Your task to perform on an android device: turn on priority inbox in the gmail app Image 0: 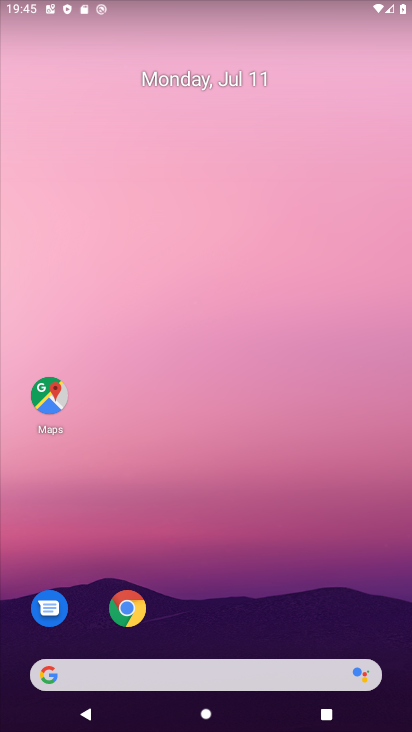
Step 0: drag from (300, 618) to (272, 40)
Your task to perform on an android device: turn on priority inbox in the gmail app Image 1: 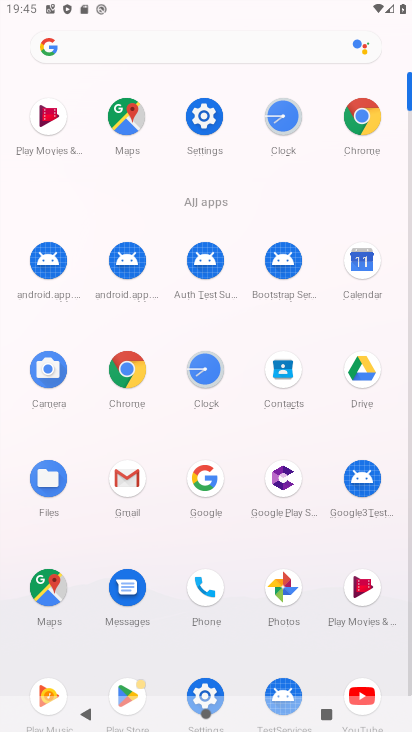
Step 1: click (137, 508)
Your task to perform on an android device: turn on priority inbox in the gmail app Image 2: 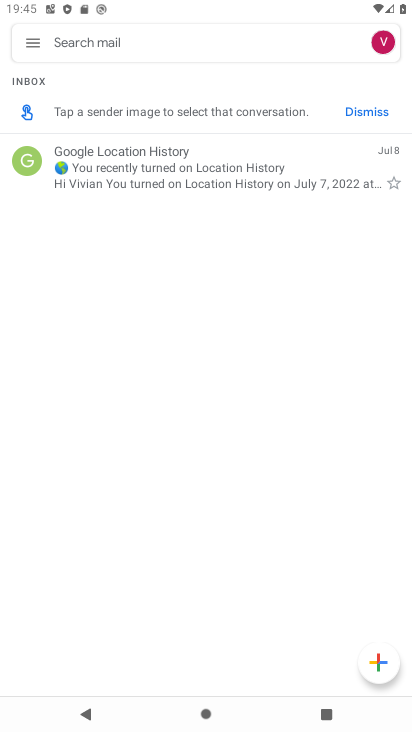
Step 2: click (37, 48)
Your task to perform on an android device: turn on priority inbox in the gmail app Image 3: 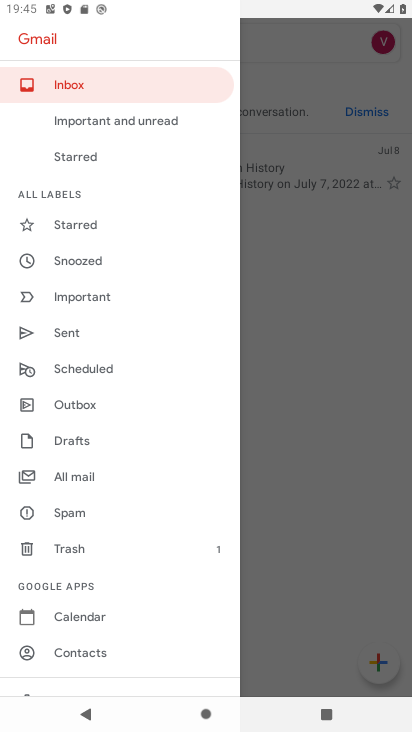
Step 3: drag from (115, 621) to (67, 206)
Your task to perform on an android device: turn on priority inbox in the gmail app Image 4: 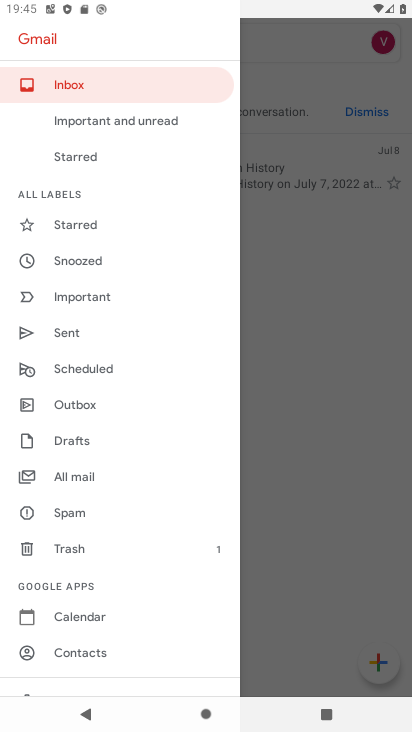
Step 4: click (92, 719)
Your task to perform on an android device: turn on priority inbox in the gmail app Image 5: 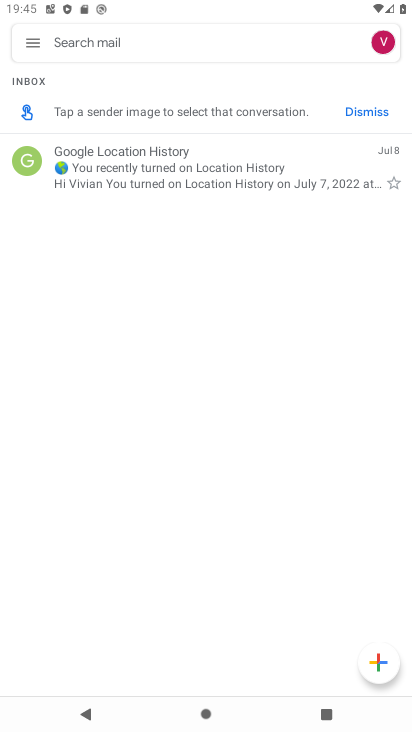
Step 5: click (25, 35)
Your task to perform on an android device: turn on priority inbox in the gmail app Image 6: 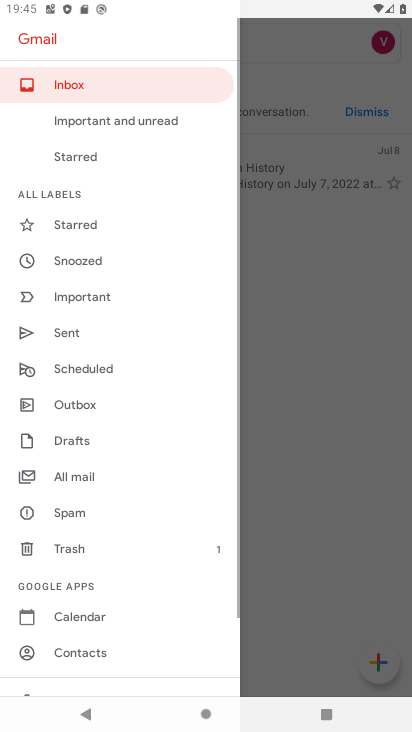
Step 6: drag from (142, 618) to (134, 312)
Your task to perform on an android device: turn on priority inbox in the gmail app Image 7: 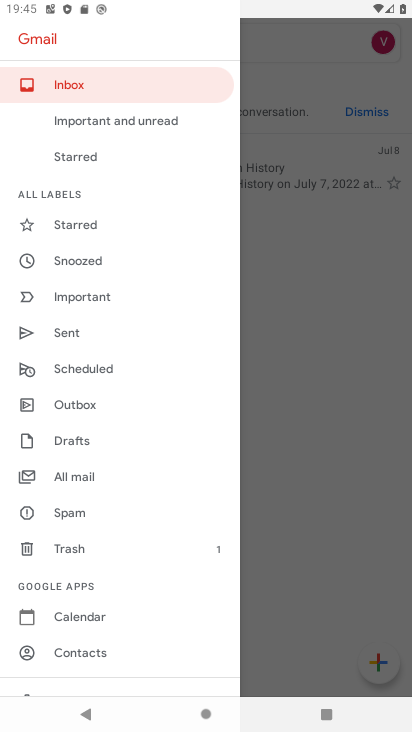
Step 7: drag from (137, 644) to (139, 445)
Your task to perform on an android device: turn on priority inbox in the gmail app Image 8: 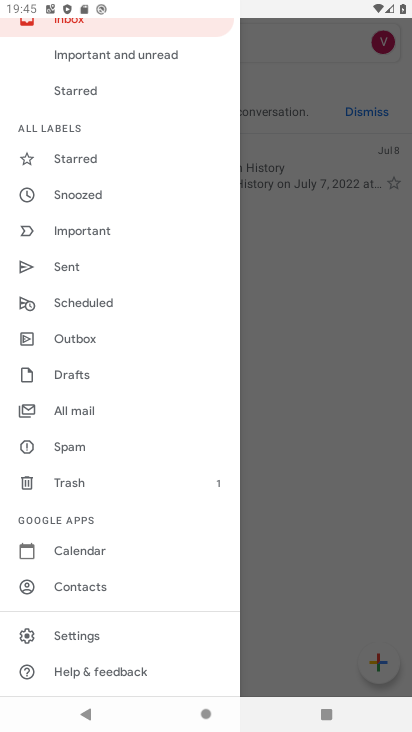
Step 8: click (102, 638)
Your task to perform on an android device: turn on priority inbox in the gmail app Image 9: 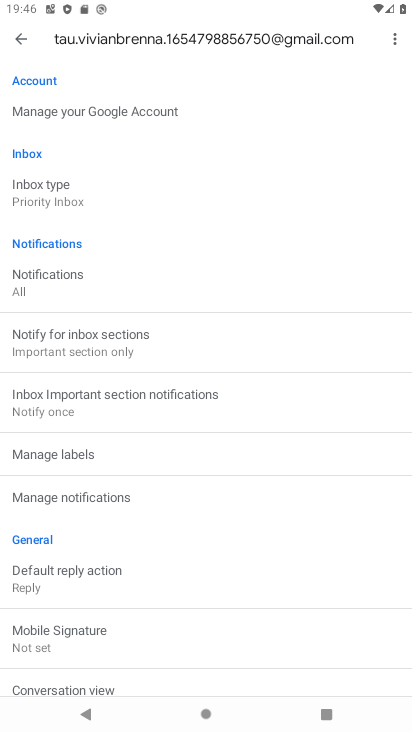
Step 9: click (61, 202)
Your task to perform on an android device: turn on priority inbox in the gmail app Image 10: 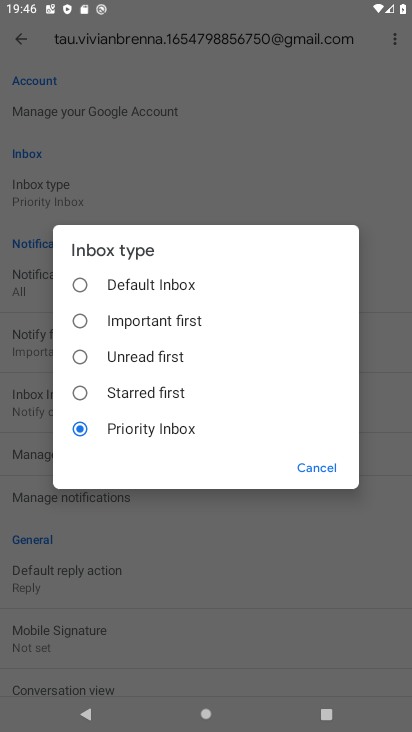
Step 10: click (184, 446)
Your task to perform on an android device: turn on priority inbox in the gmail app Image 11: 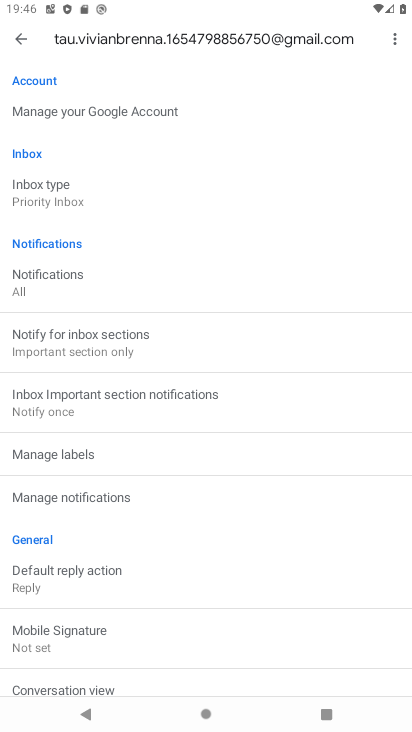
Step 11: task complete